Your task to perform on an android device: Go to ESPN.com Image 0: 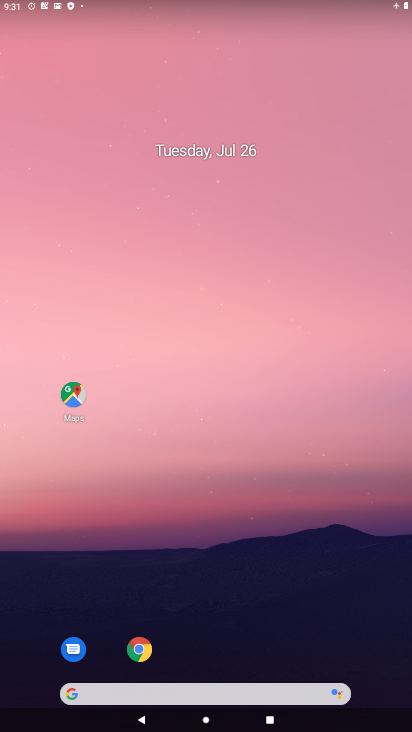
Step 0: drag from (179, 616) to (231, 102)
Your task to perform on an android device: Go to ESPN.com Image 1: 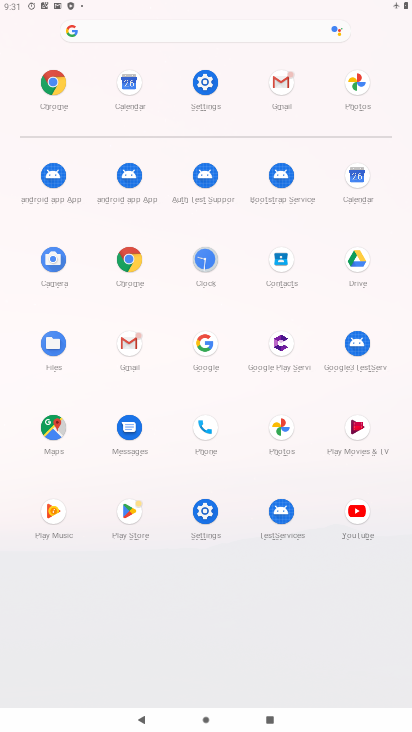
Step 1: click (103, 25)
Your task to perform on an android device: Go to ESPN.com Image 2: 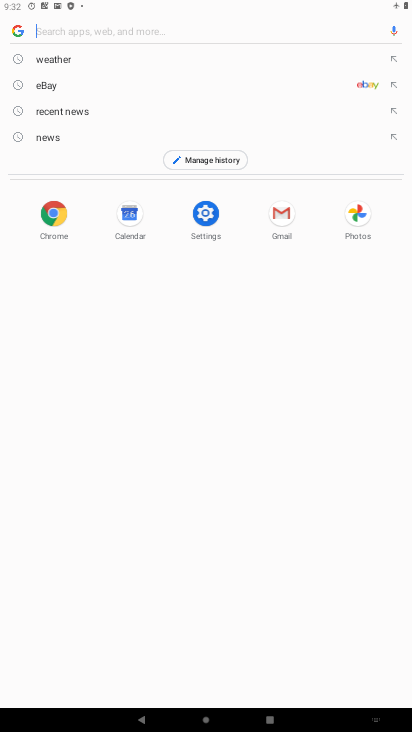
Step 2: type "espn.com"
Your task to perform on an android device: Go to ESPN.com Image 3: 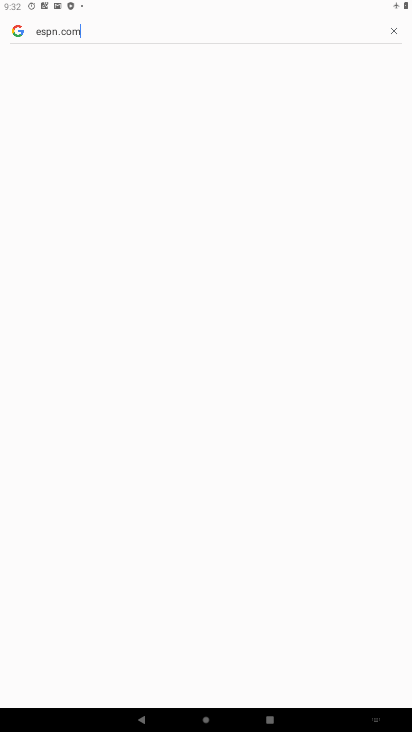
Step 3: task complete